Your task to perform on an android device: clear all cookies in the chrome app Image 0: 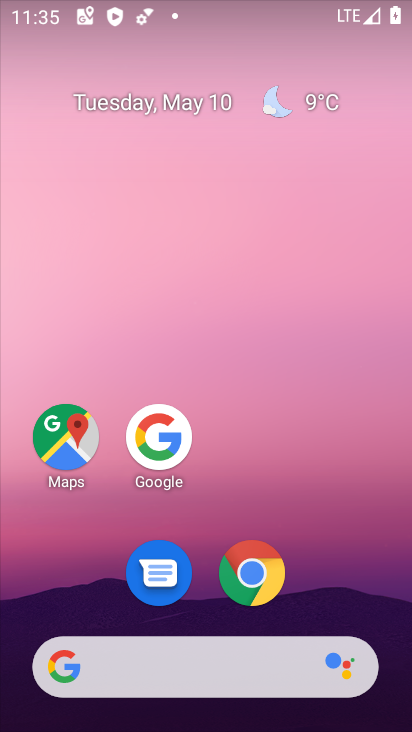
Step 0: press home button
Your task to perform on an android device: clear all cookies in the chrome app Image 1: 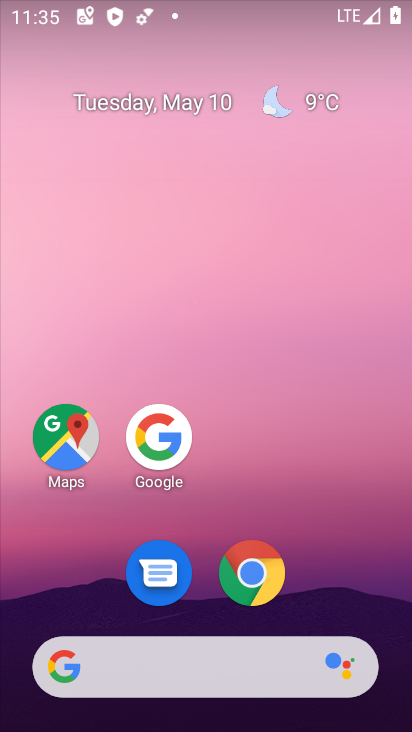
Step 1: drag from (133, 678) to (243, 57)
Your task to perform on an android device: clear all cookies in the chrome app Image 2: 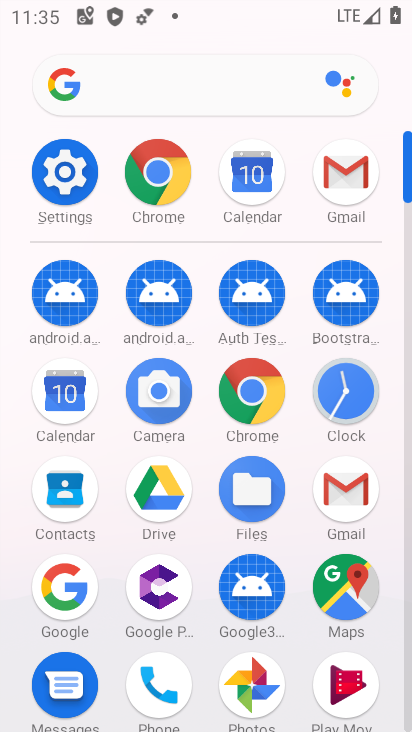
Step 2: click (165, 188)
Your task to perform on an android device: clear all cookies in the chrome app Image 3: 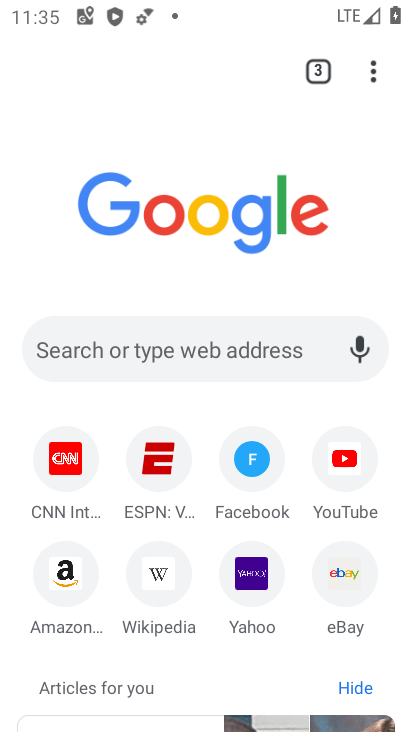
Step 3: drag from (375, 79) to (174, 597)
Your task to perform on an android device: clear all cookies in the chrome app Image 4: 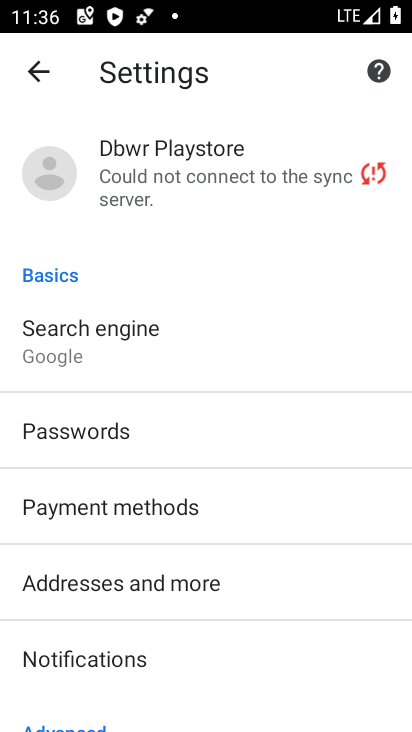
Step 4: drag from (186, 588) to (342, 203)
Your task to perform on an android device: clear all cookies in the chrome app Image 5: 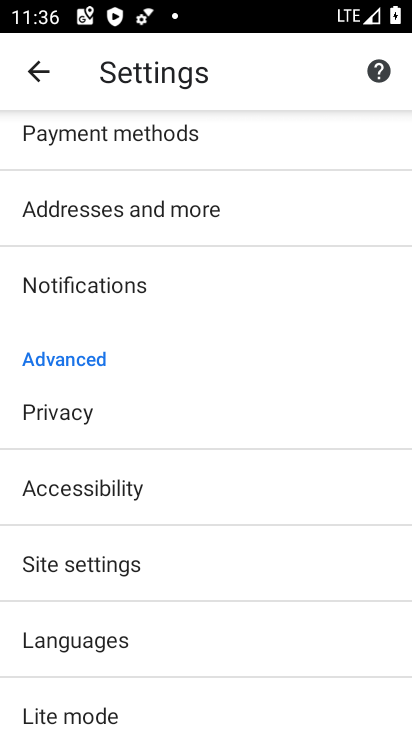
Step 5: click (72, 418)
Your task to perform on an android device: clear all cookies in the chrome app Image 6: 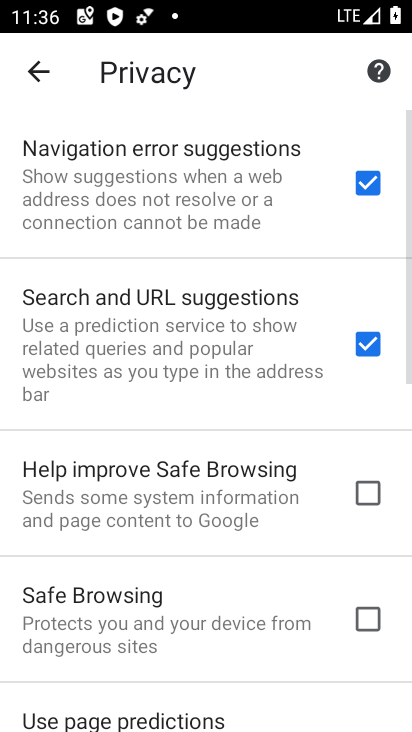
Step 6: drag from (182, 633) to (320, 182)
Your task to perform on an android device: clear all cookies in the chrome app Image 7: 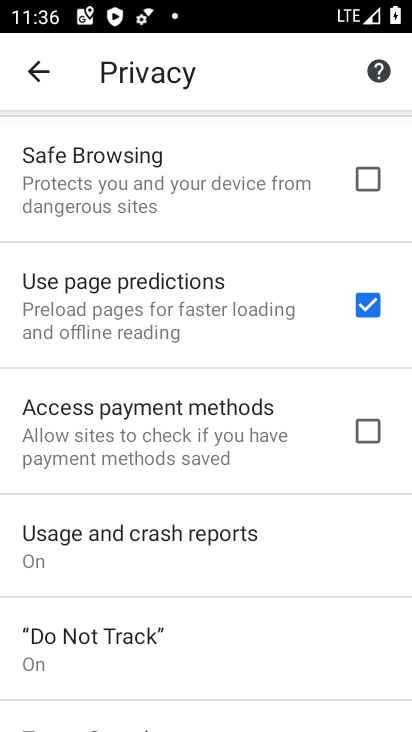
Step 7: drag from (173, 613) to (317, 203)
Your task to perform on an android device: clear all cookies in the chrome app Image 8: 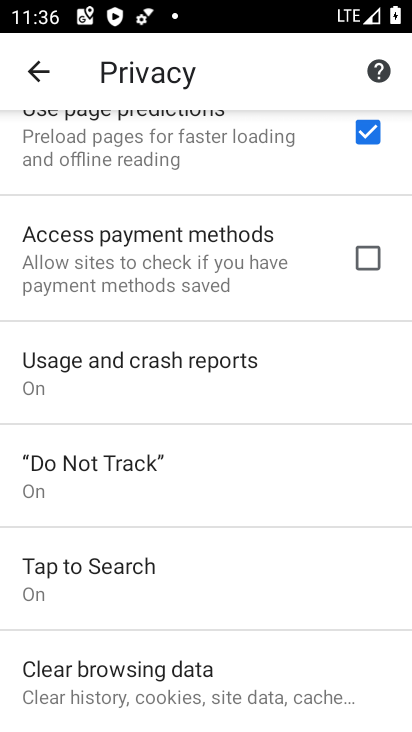
Step 8: click (161, 674)
Your task to perform on an android device: clear all cookies in the chrome app Image 9: 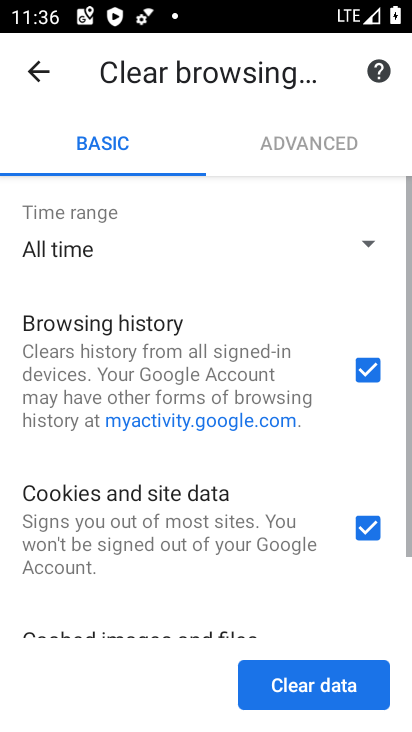
Step 9: click (363, 372)
Your task to perform on an android device: clear all cookies in the chrome app Image 10: 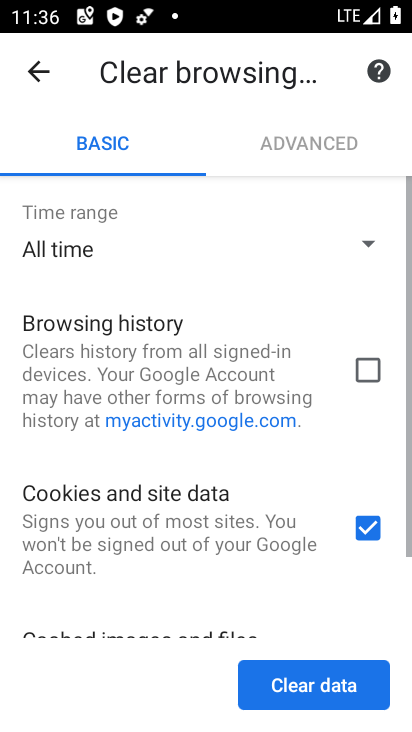
Step 10: drag from (221, 545) to (309, 276)
Your task to perform on an android device: clear all cookies in the chrome app Image 11: 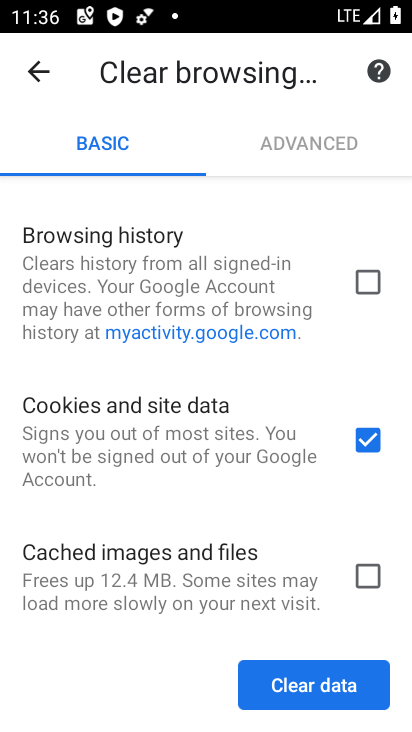
Step 11: click (317, 691)
Your task to perform on an android device: clear all cookies in the chrome app Image 12: 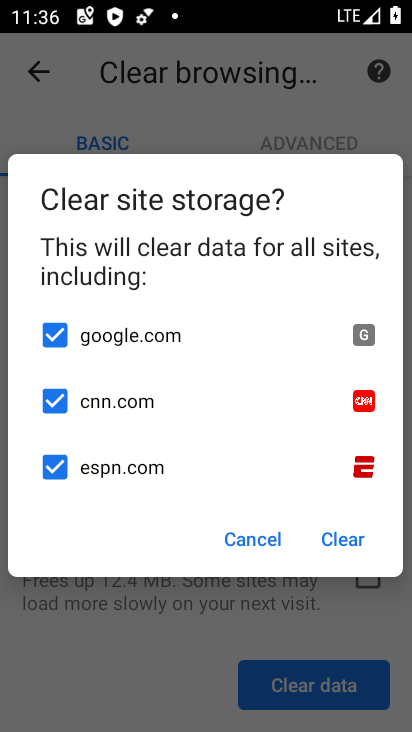
Step 12: click (332, 534)
Your task to perform on an android device: clear all cookies in the chrome app Image 13: 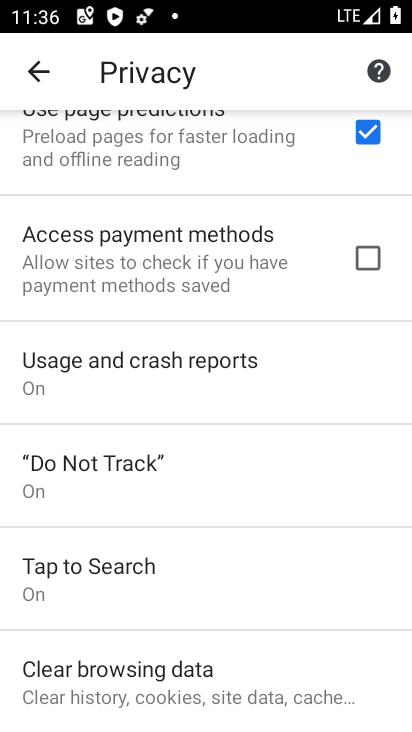
Step 13: task complete